Your task to perform on an android device: turn off translation in the chrome app Image 0: 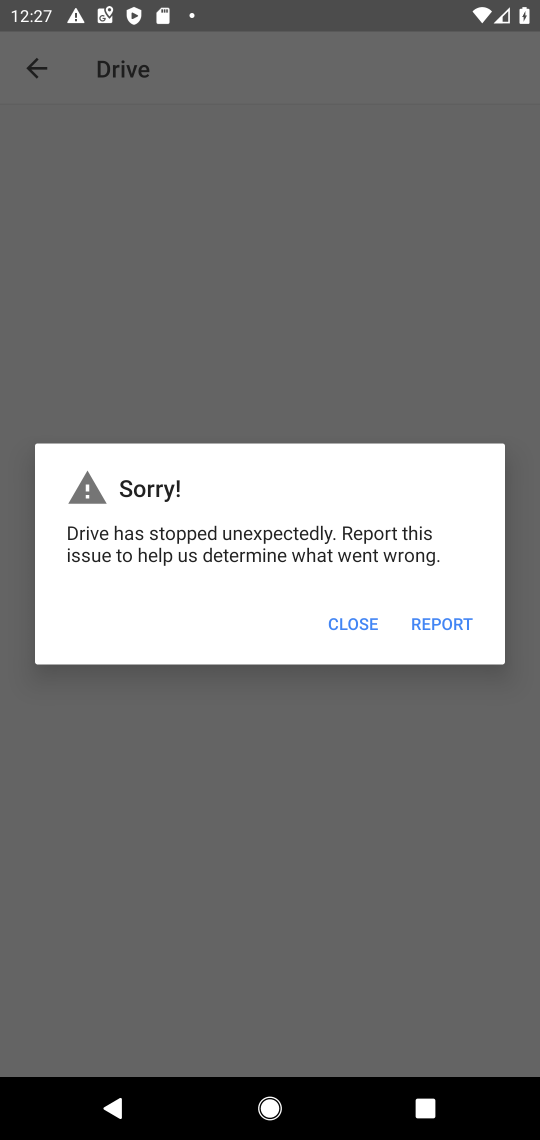
Step 0: press home button
Your task to perform on an android device: turn off translation in the chrome app Image 1: 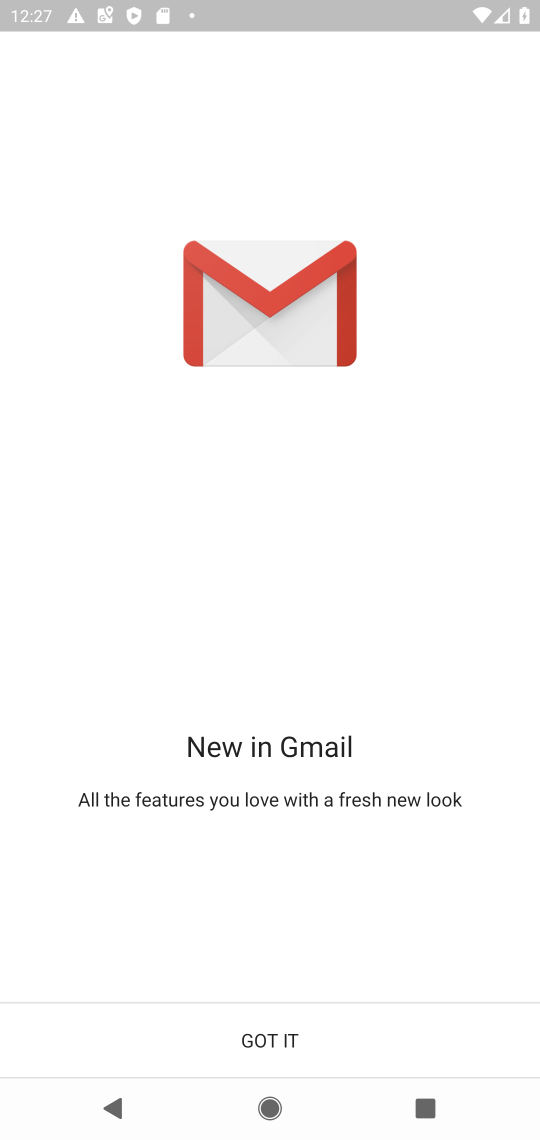
Step 1: press home button
Your task to perform on an android device: turn off translation in the chrome app Image 2: 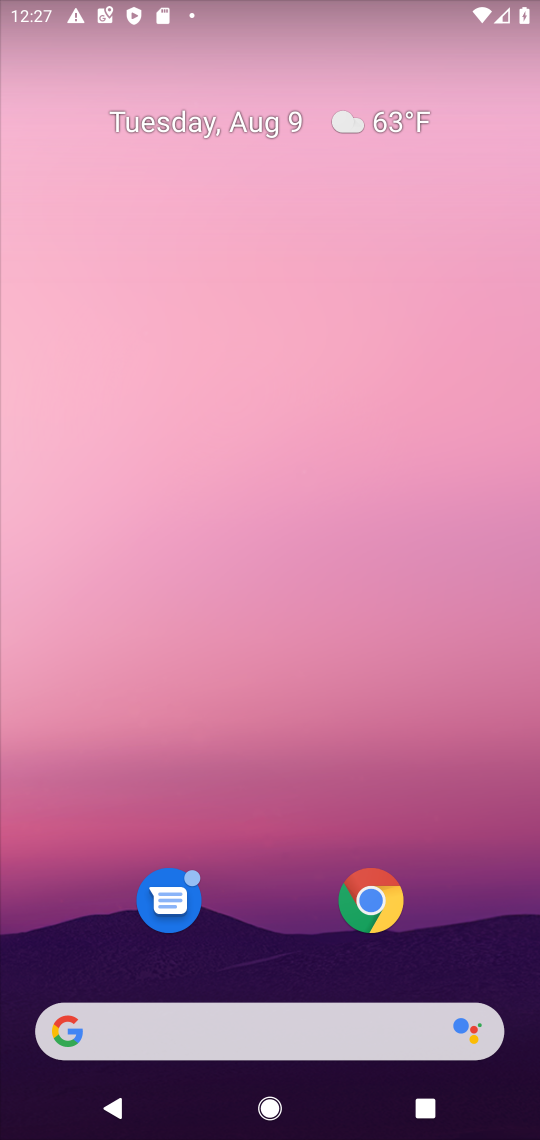
Step 2: drag from (460, 928) to (537, 917)
Your task to perform on an android device: turn off translation in the chrome app Image 3: 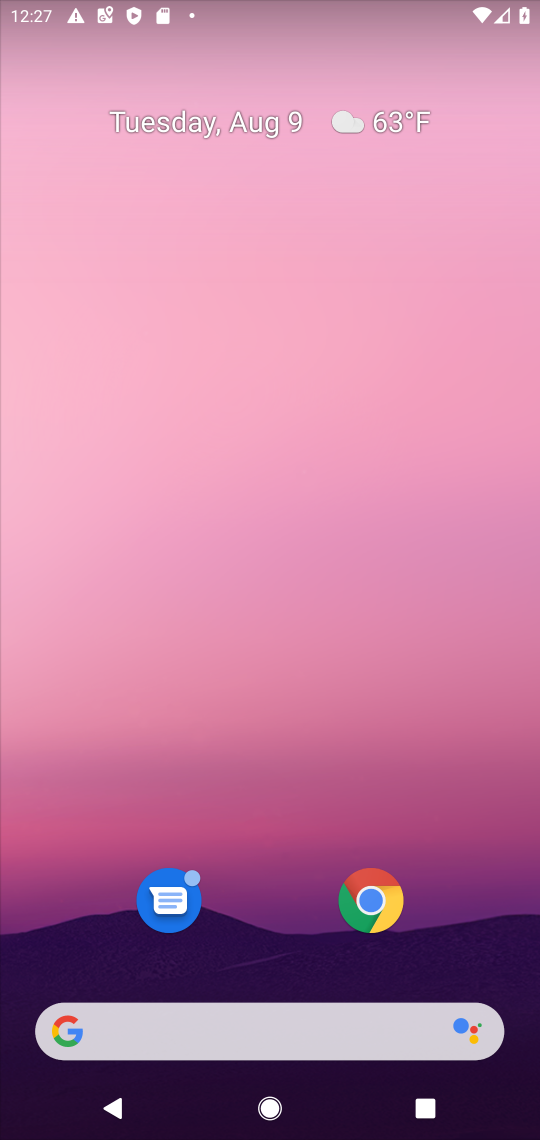
Step 3: drag from (489, 916) to (480, 145)
Your task to perform on an android device: turn off translation in the chrome app Image 4: 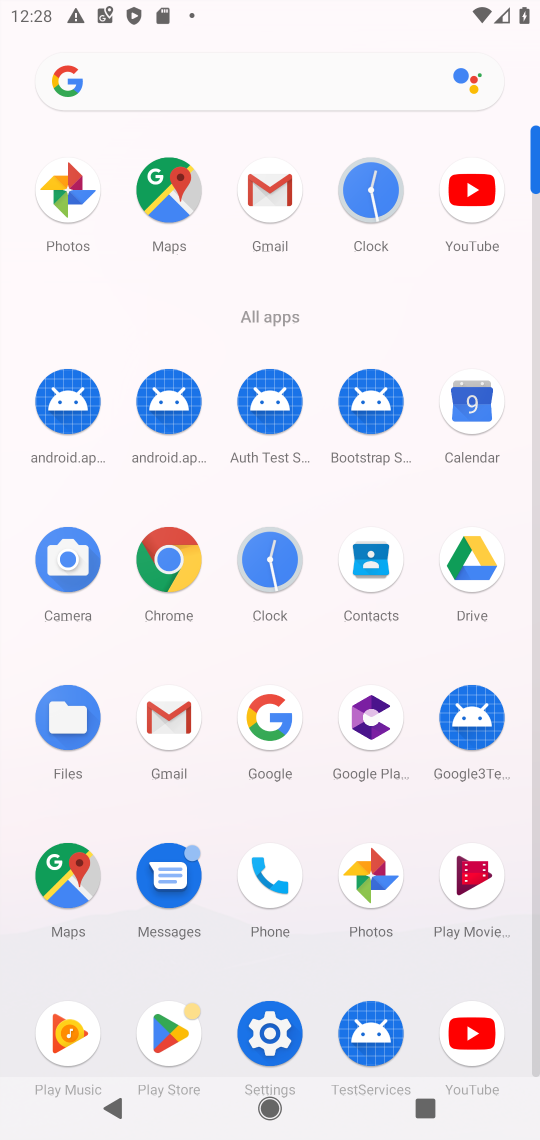
Step 4: click (171, 563)
Your task to perform on an android device: turn off translation in the chrome app Image 5: 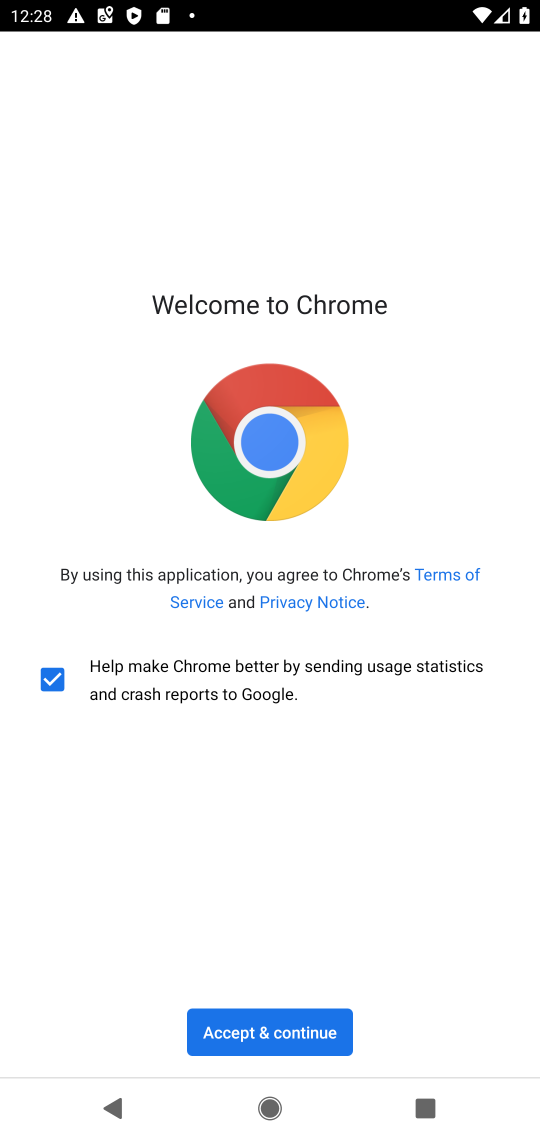
Step 5: click (238, 1037)
Your task to perform on an android device: turn off translation in the chrome app Image 6: 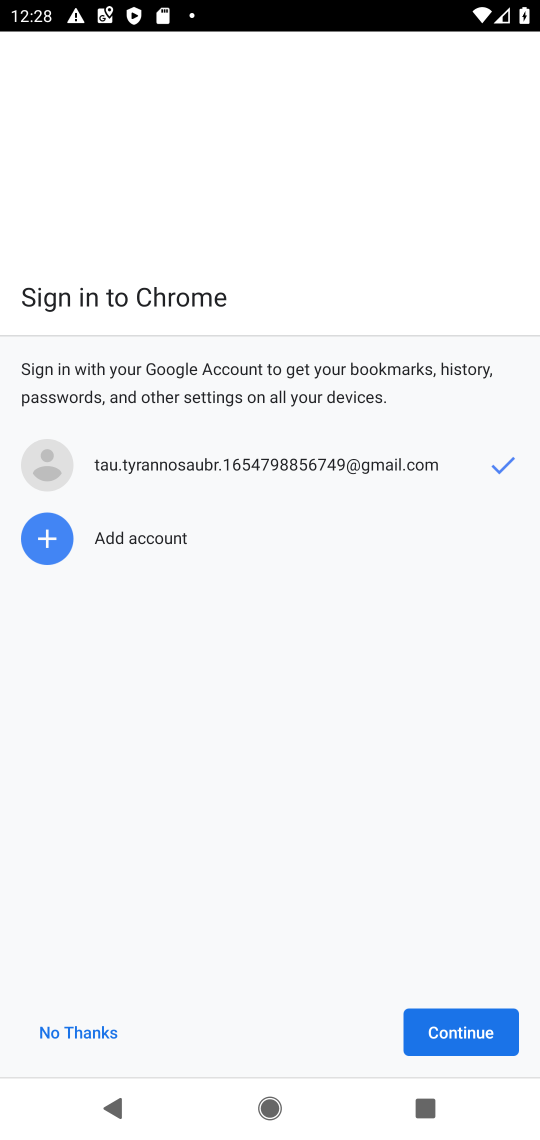
Step 6: click (462, 1029)
Your task to perform on an android device: turn off translation in the chrome app Image 7: 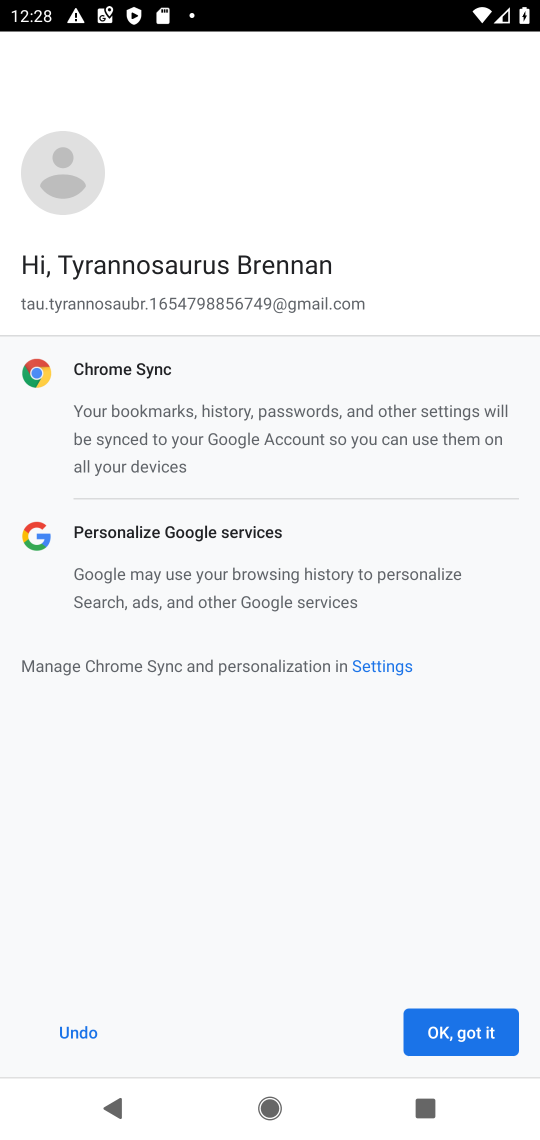
Step 7: click (462, 1029)
Your task to perform on an android device: turn off translation in the chrome app Image 8: 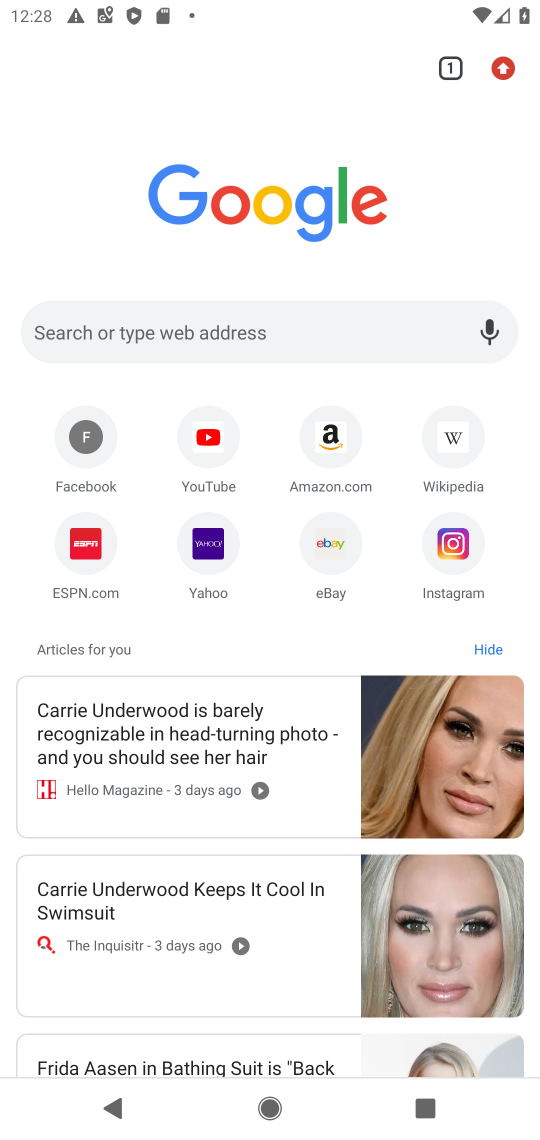
Step 8: click (504, 69)
Your task to perform on an android device: turn off translation in the chrome app Image 9: 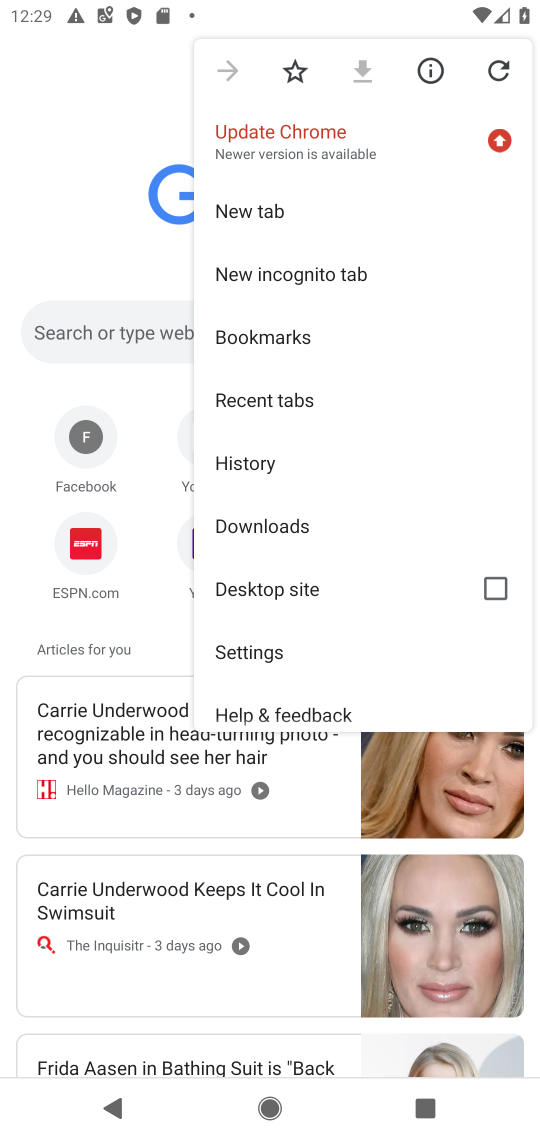
Step 9: click (255, 658)
Your task to perform on an android device: turn off translation in the chrome app Image 10: 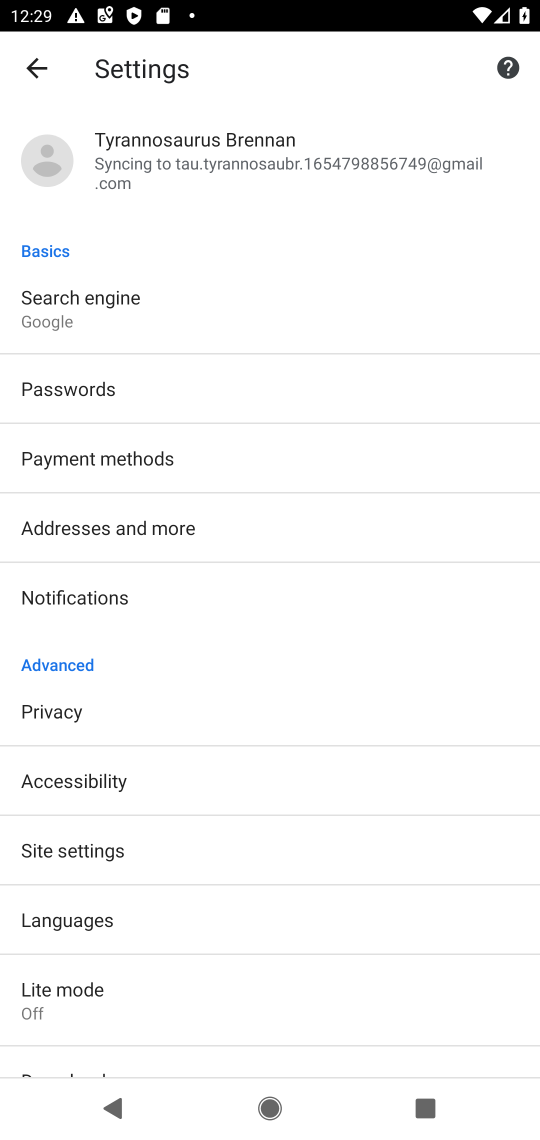
Step 10: drag from (287, 887) to (332, 520)
Your task to perform on an android device: turn off translation in the chrome app Image 11: 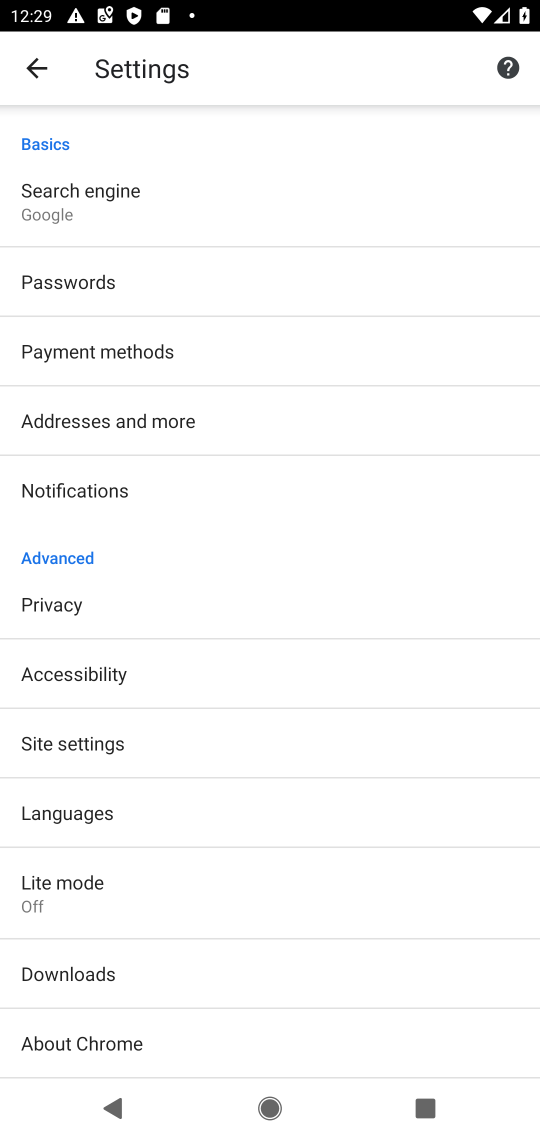
Step 11: drag from (264, 895) to (326, 538)
Your task to perform on an android device: turn off translation in the chrome app Image 12: 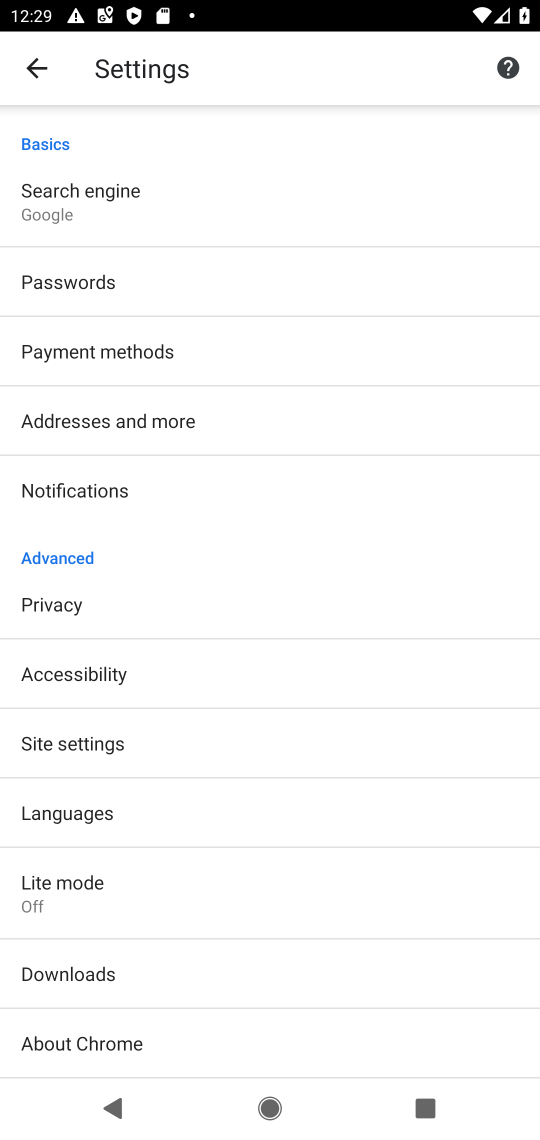
Step 12: click (219, 799)
Your task to perform on an android device: turn off translation in the chrome app Image 13: 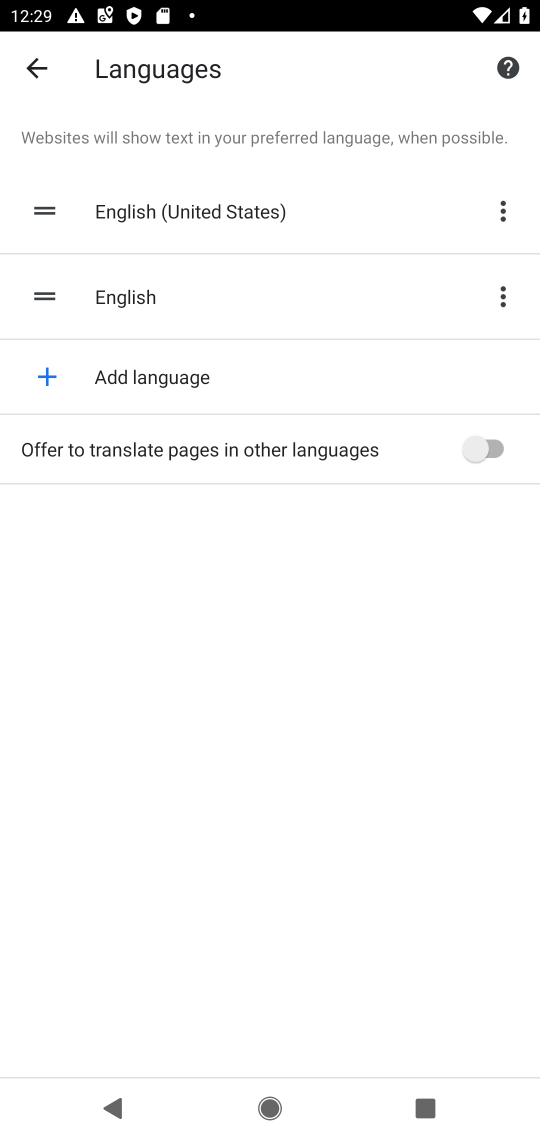
Step 13: task complete